Your task to perform on an android device: open app "Viber Messenger" (install if not already installed), go to login, and select forgot password Image 0: 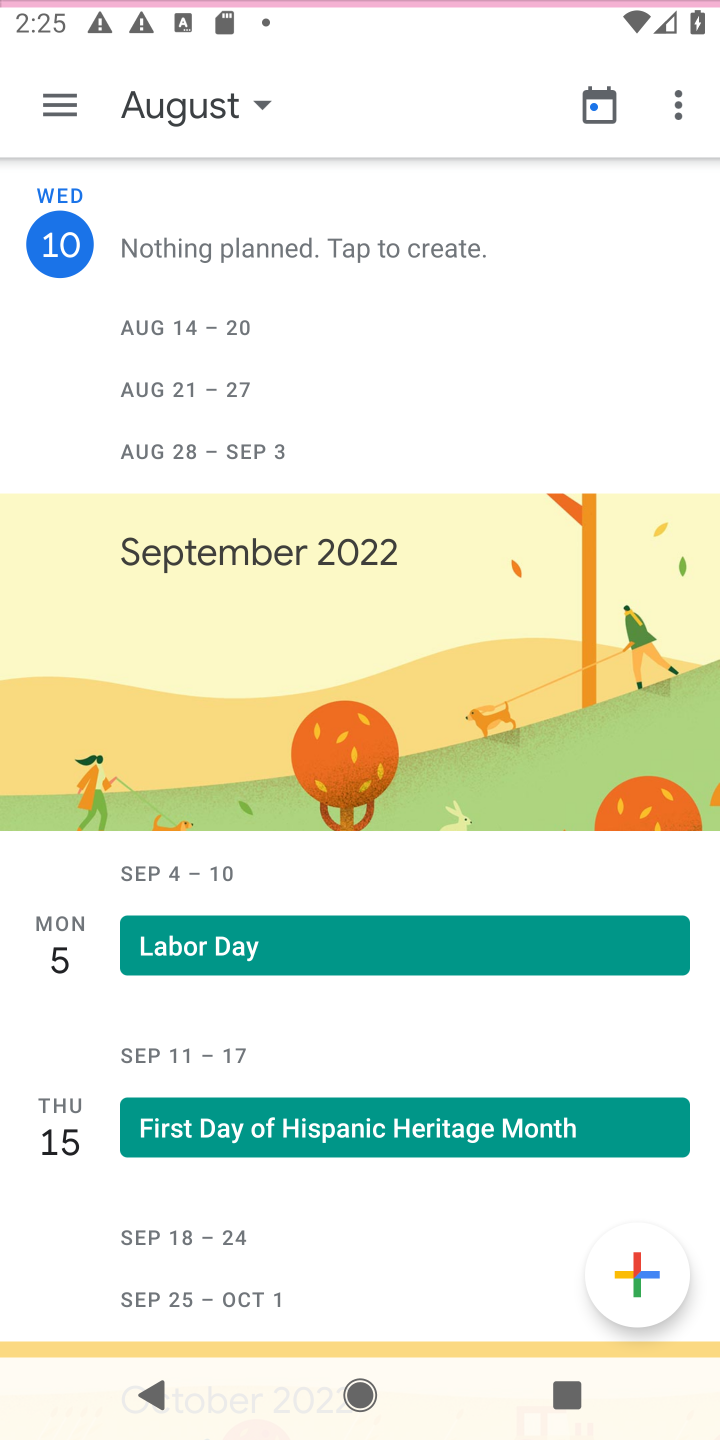
Step 0: press home button
Your task to perform on an android device: open app "Viber Messenger" (install if not already installed), go to login, and select forgot password Image 1: 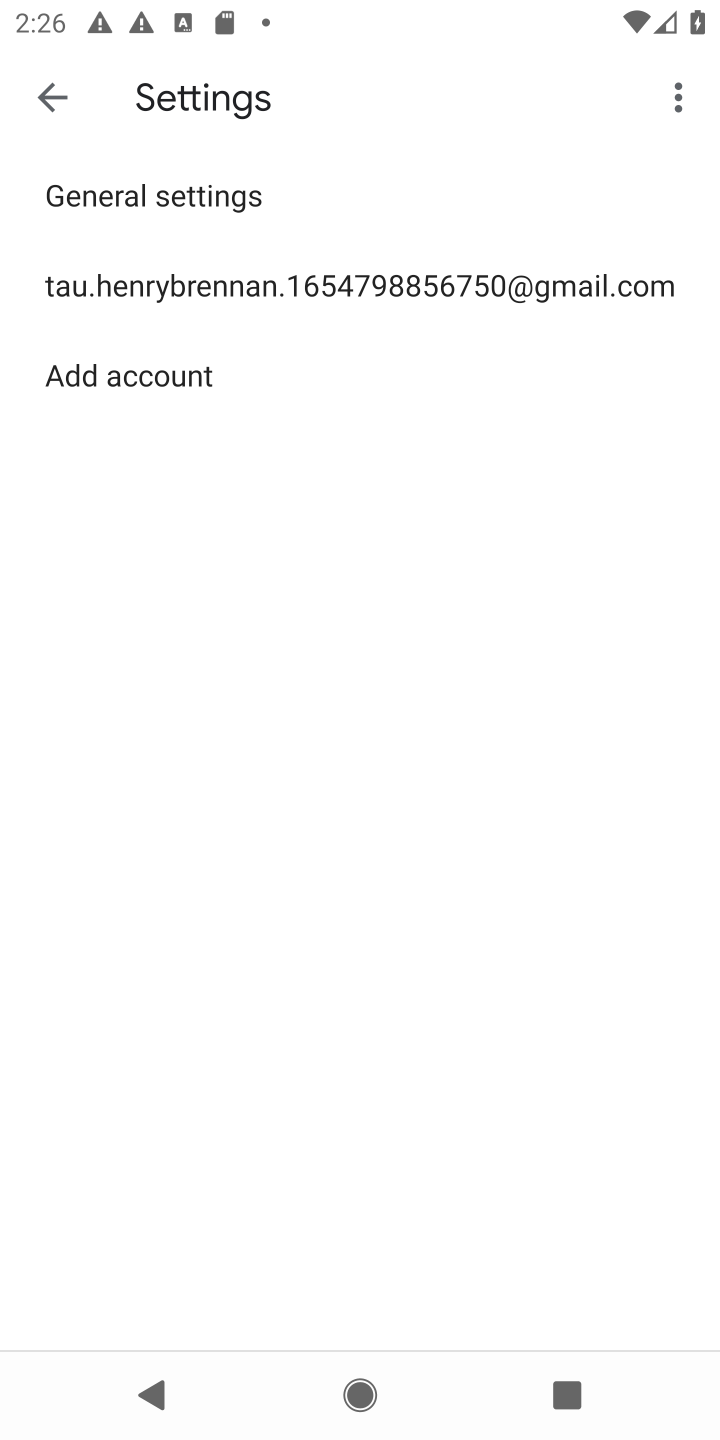
Step 1: press home button
Your task to perform on an android device: open app "Viber Messenger" (install if not already installed), go to login, and select forgot password Image 2: 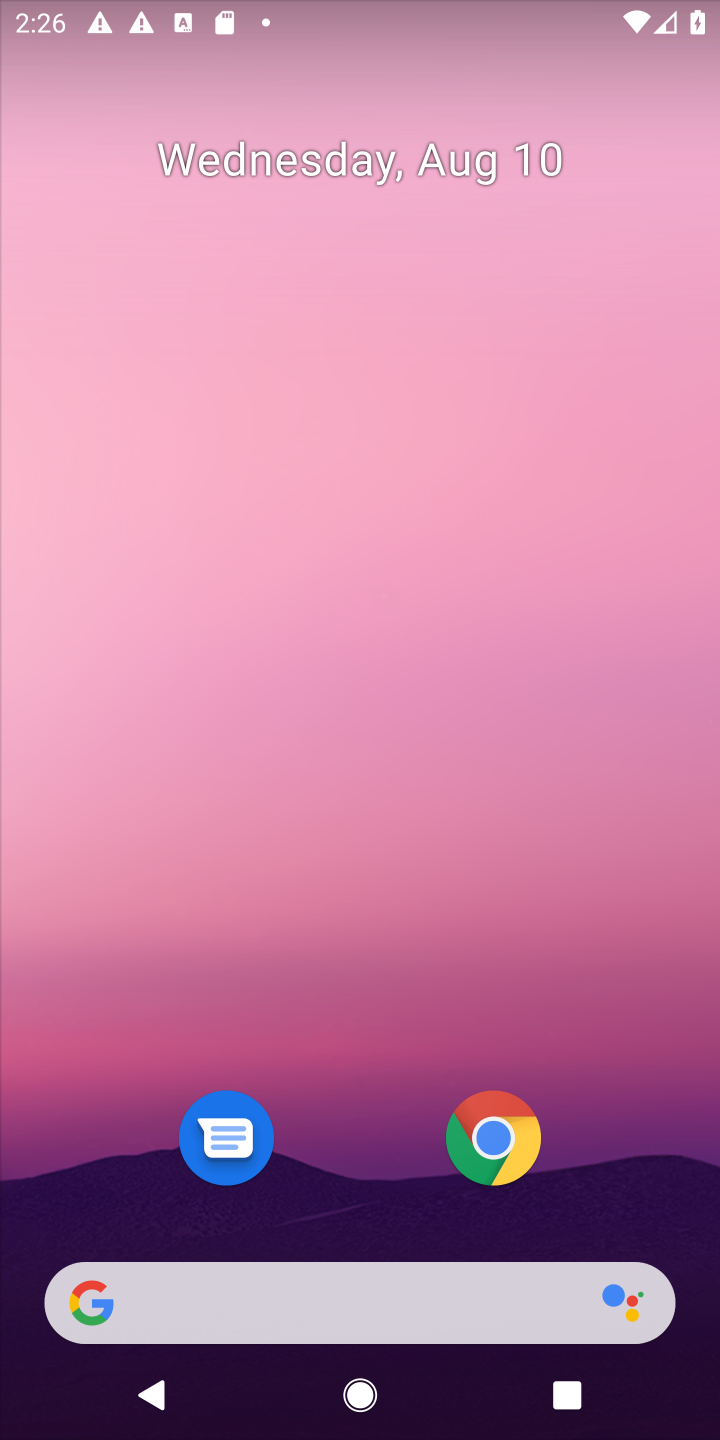
Step 2: drag from (648, 1040) to (663, 101)
Your task to perform on an android device: open app "Viber Messenger" (install if not already installed), go to login, and select forgot password Image 3: 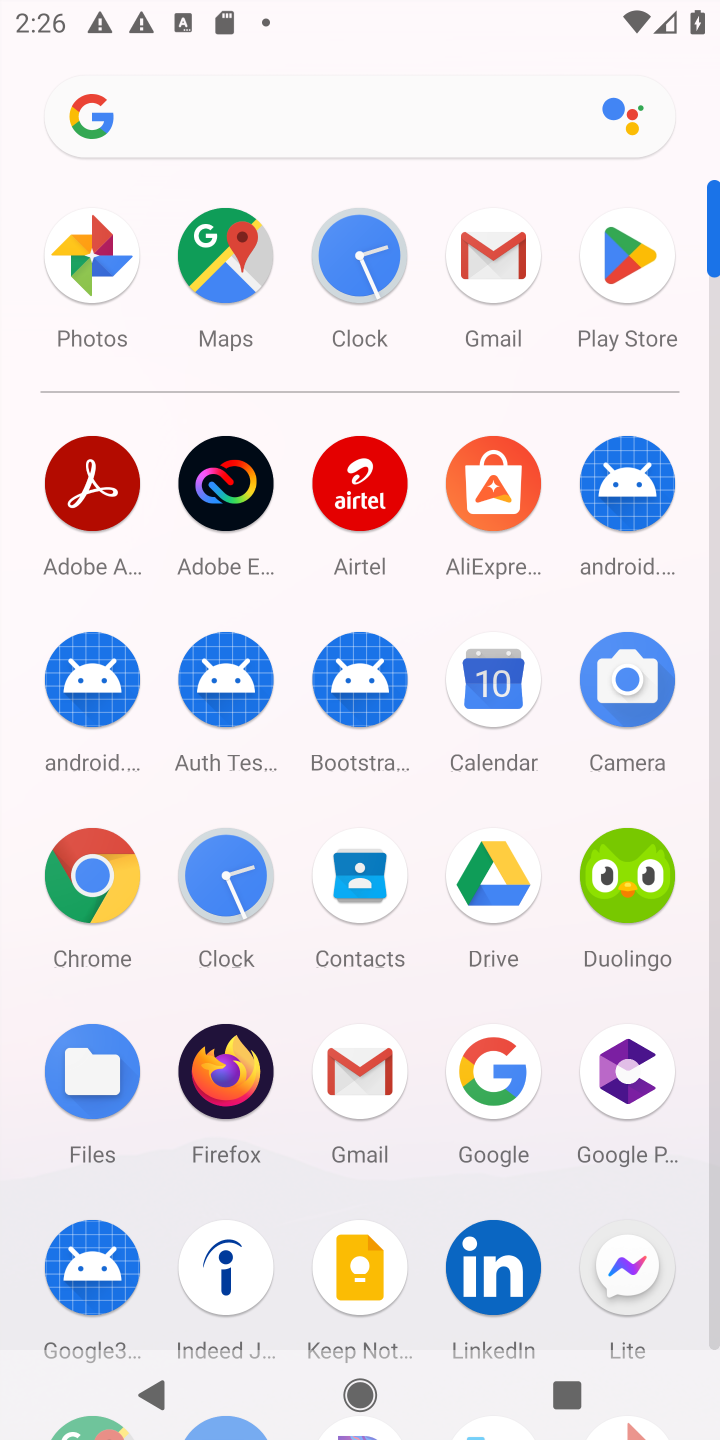
Step 3: click (626, 270)
Your task to perform on an android device: open app "Viber Messenger" (install if not already installed), go to login, and select forgot password Image 4: 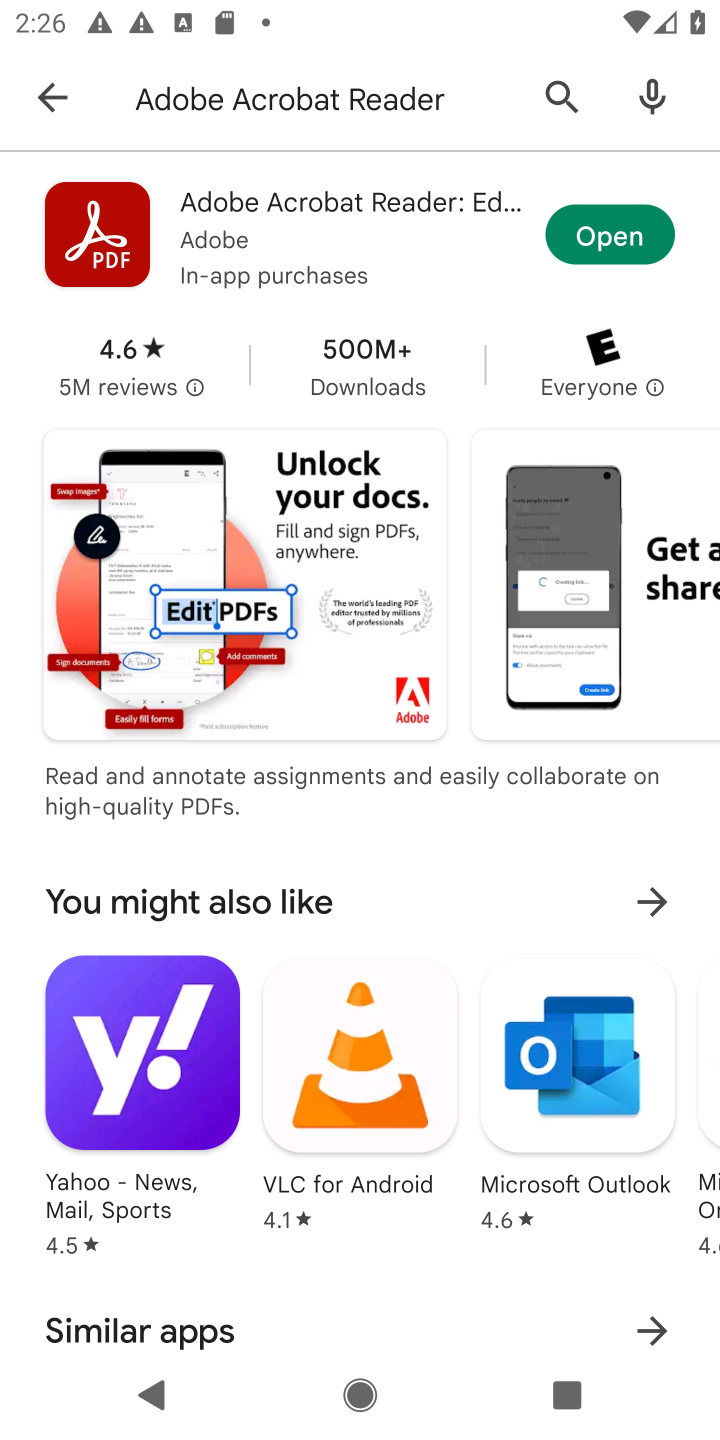
Step 4: click (548, 87)
Your task to perform on an android device: open app "Viber Messenger" (install if not already installed), go to login, and select forgot password Image 5: 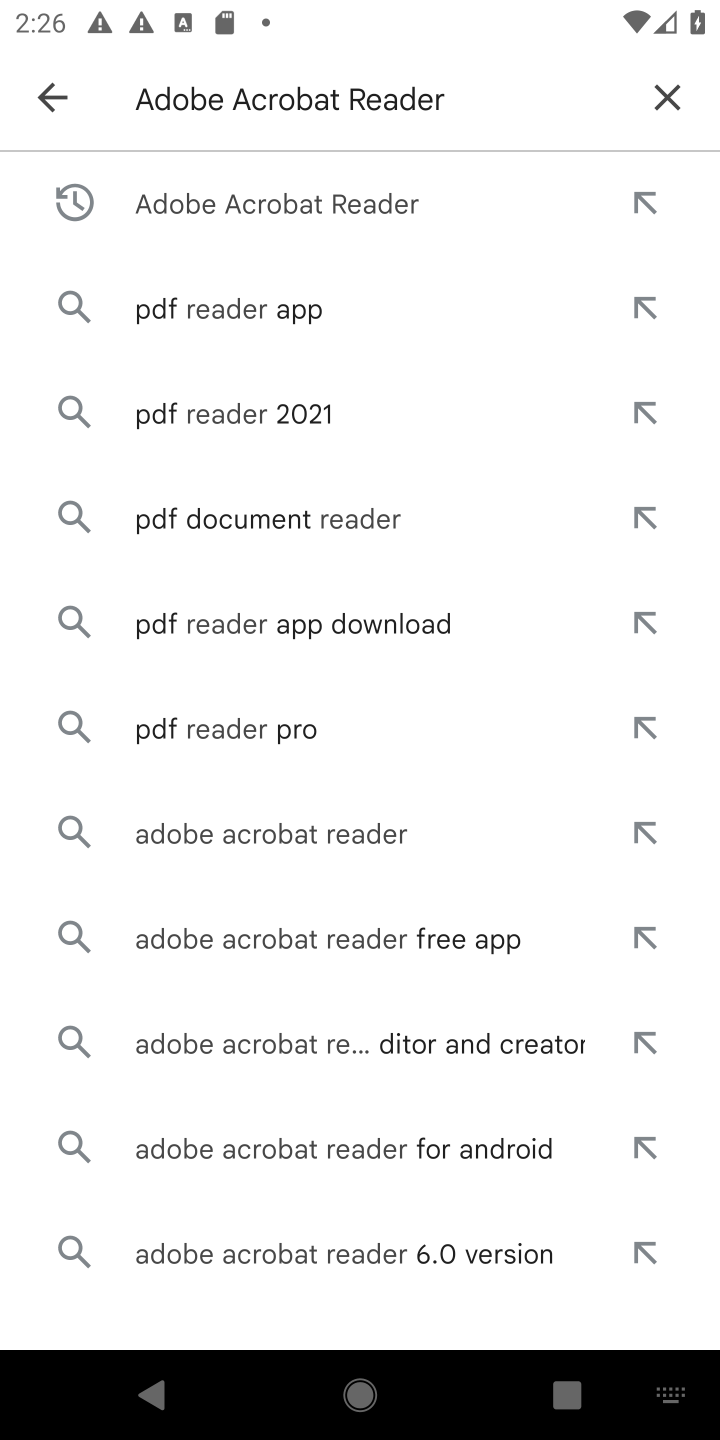
Step 5: click (672, 97)
Your task to perform on an android device: open app "Viber Messenger" (install if not already installed), go to login, and select forgot password Image 6: 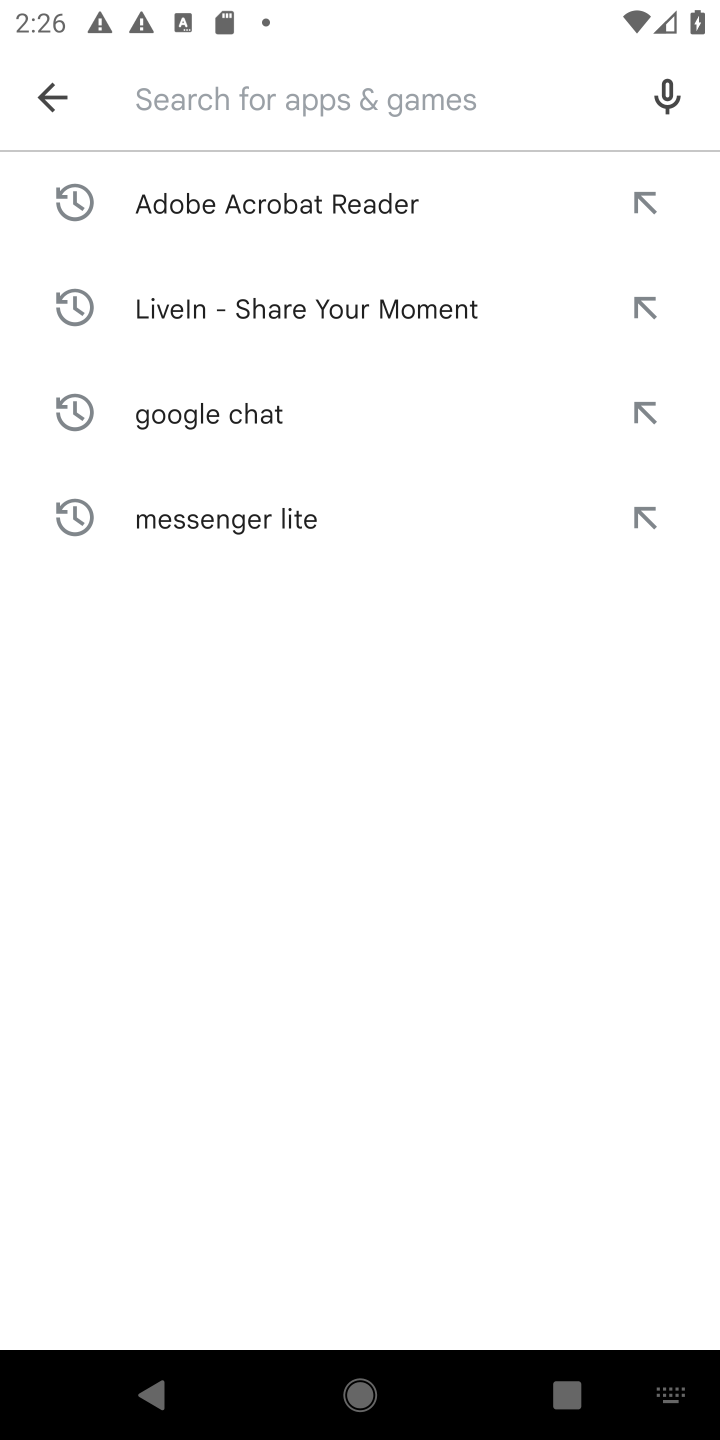
Step 6: type "Viber Messenger"
Your task to perform on an android device: open app "Viber Messenger" (install if not already installed), go to login, and select forgot password Image 7: 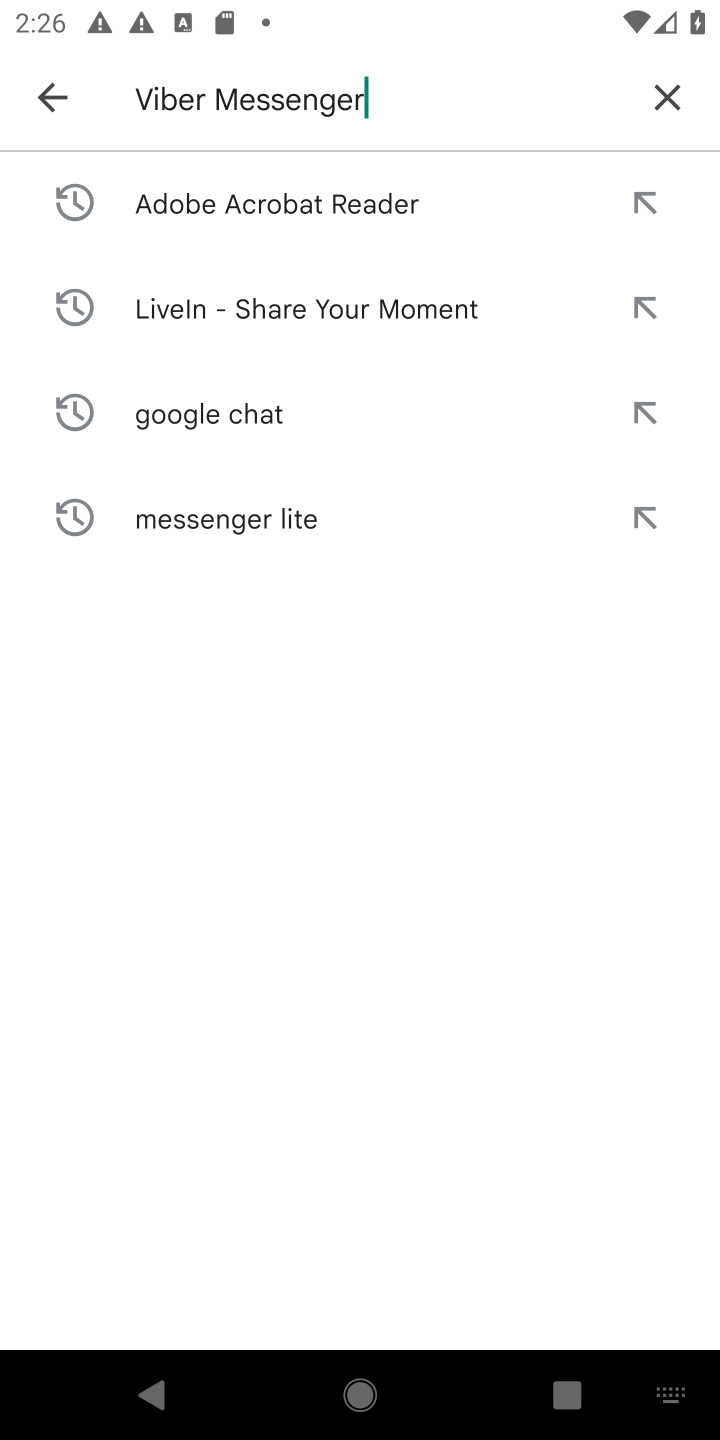
Step 7: press enter
Your task to perform on an android device: open app "Viber Messenger" (install if not already installed), go to login, and select forgot password Image 8: 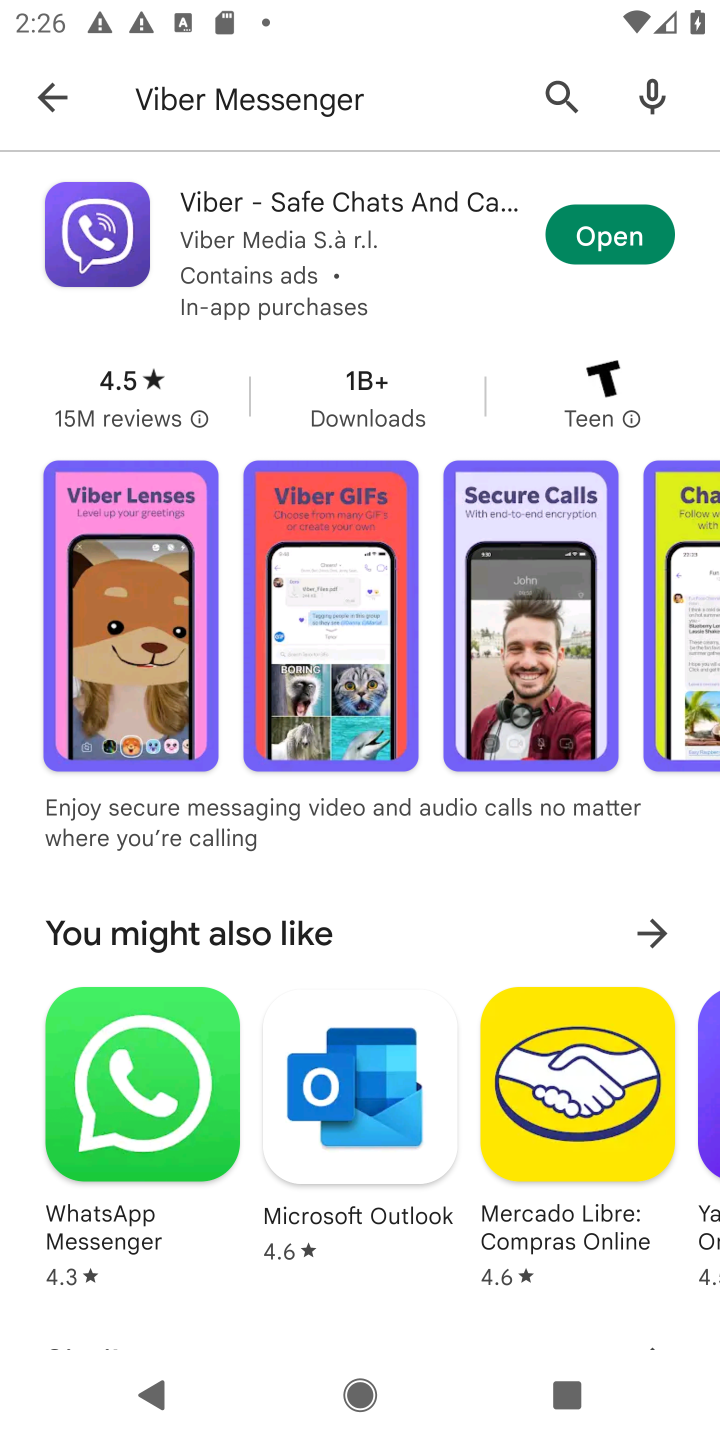
Step 8: click (607, 232)
Your task to perform on an android device: open app "Viber Messenger" (install if not already installed), go to login, and select forgot password Image 9: 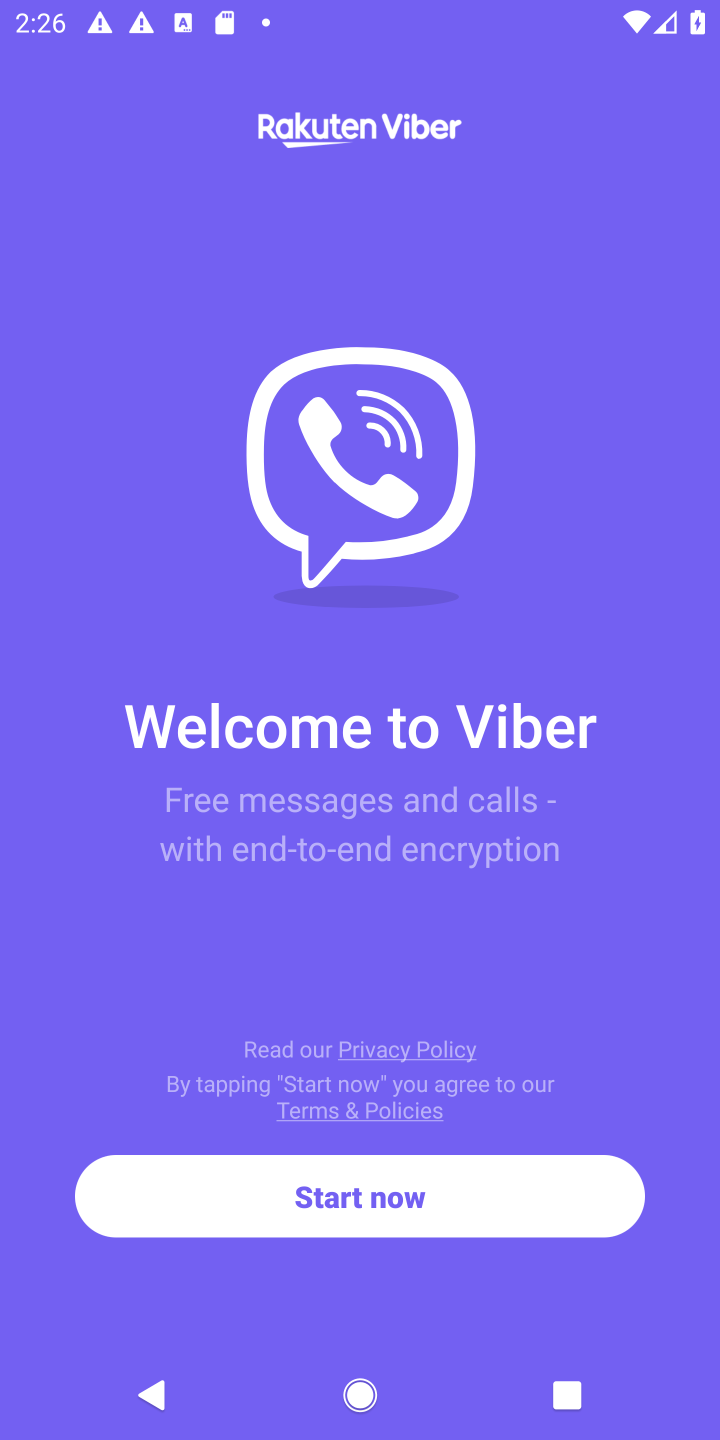
Step 9: click (508, 1207)
Your task to perform on an android device: open app "Viber Messenger" (install if not already installed), go to login, and select forgot password Image 10: 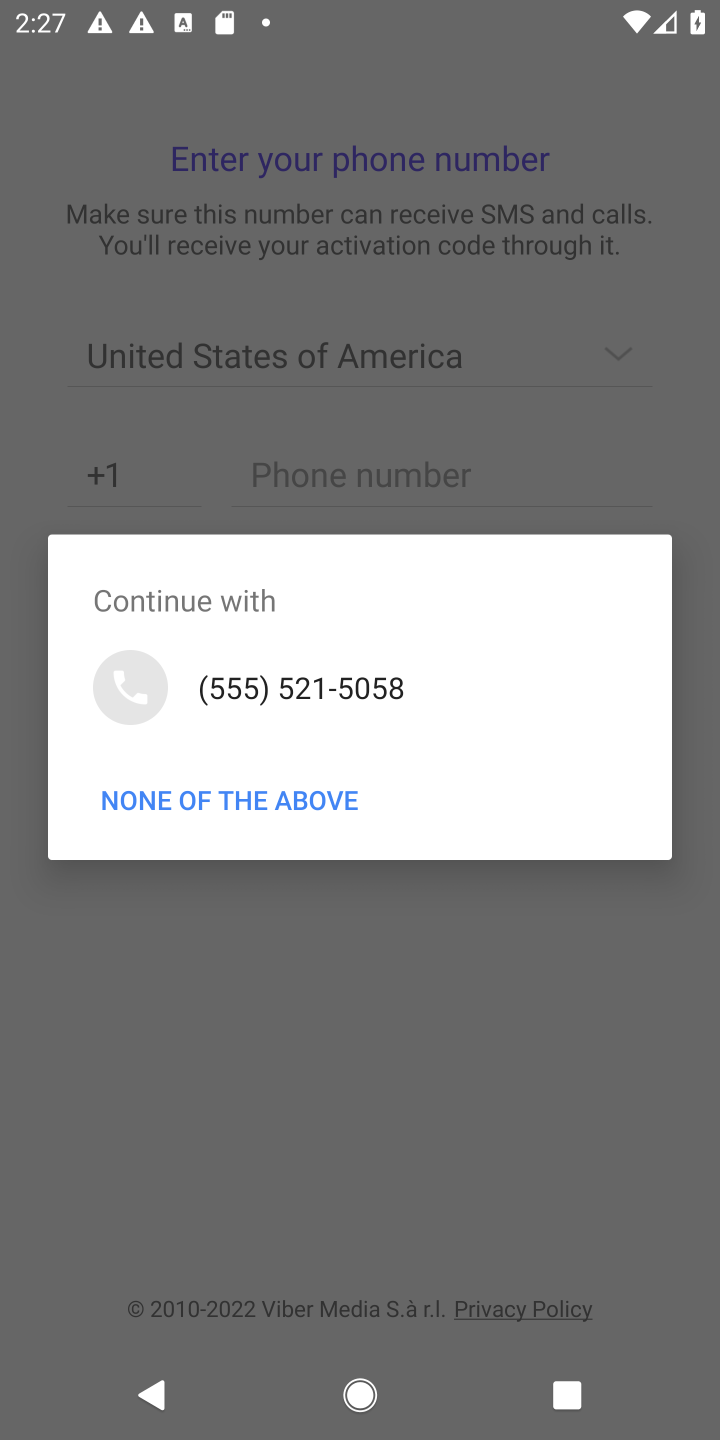
Step 10: click (239, 803)
Your task to perform on an android device: open app "Viber Messenger" (install if not already installed), go to login, and select forgot password Image 11: 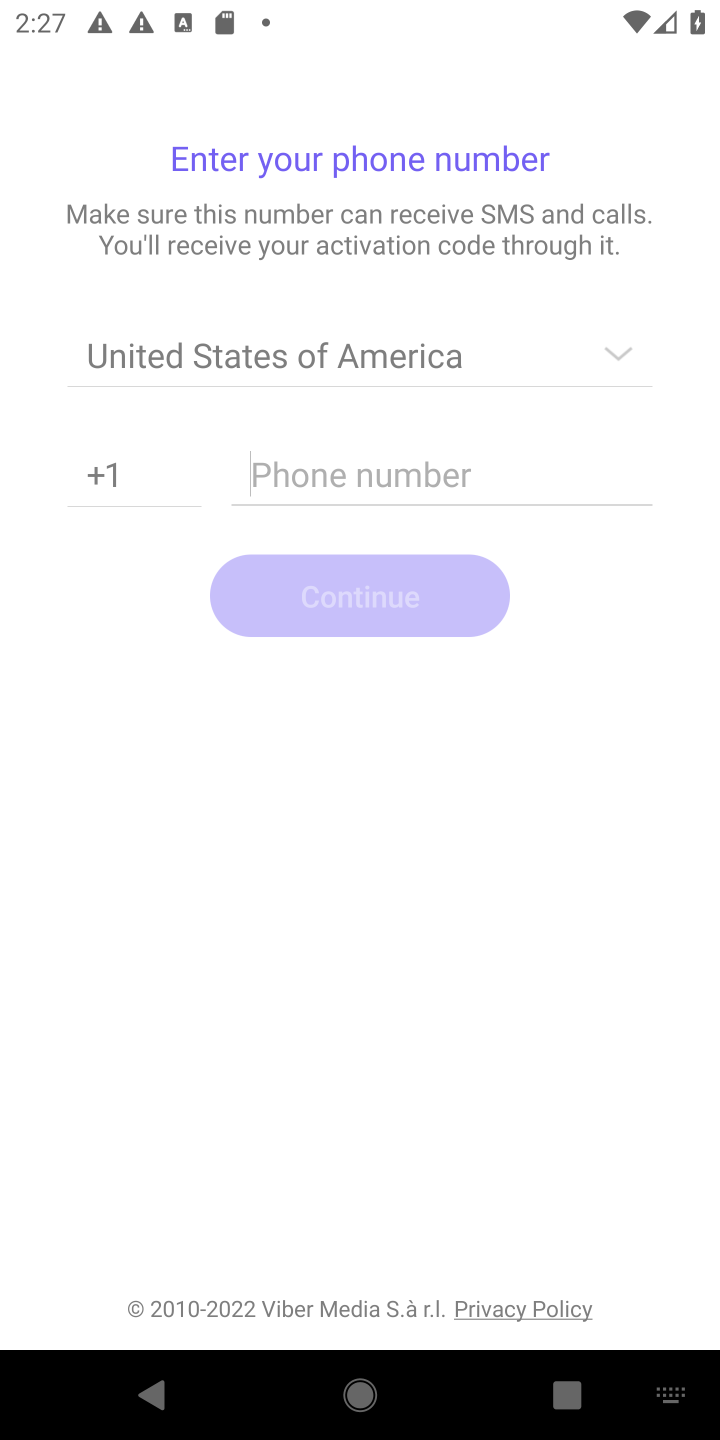
Step 11: task complete